Your task to perform on an android device: toggle show notifications on the lock screen Image 0: 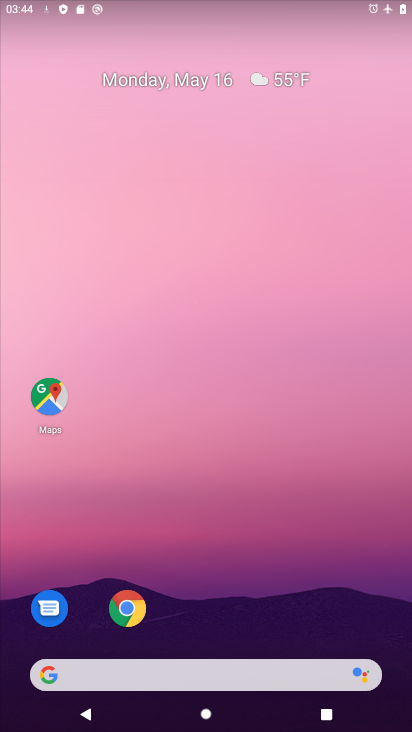
Step 0: drag from (198, 455) to (190, 136)
Your task to perform on an android device: toggle show notifications on the lock screen Image 1: 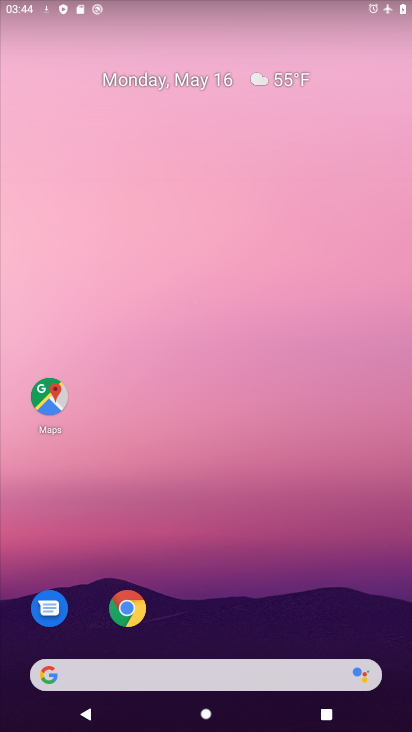
Step 1: drag from (214, 511) to (238, 210)
Your task to perform on an android device: toggle show notifications on the lock screen Image 2: 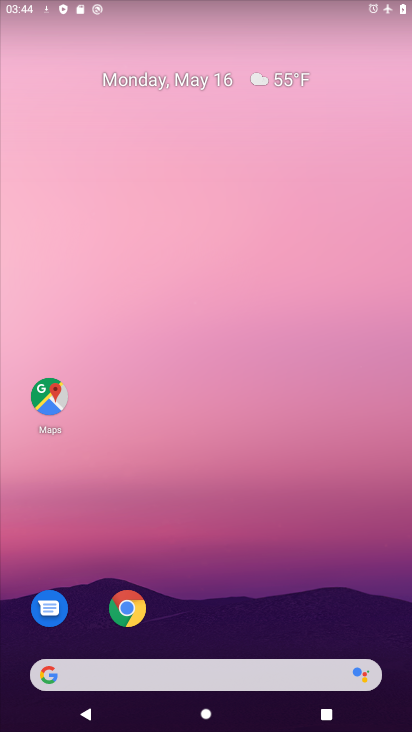
Step 2: drag from (200, 602) to (234, 141)
Your task to perform on an android device: toggle show notifications on the lock screen Image 3: 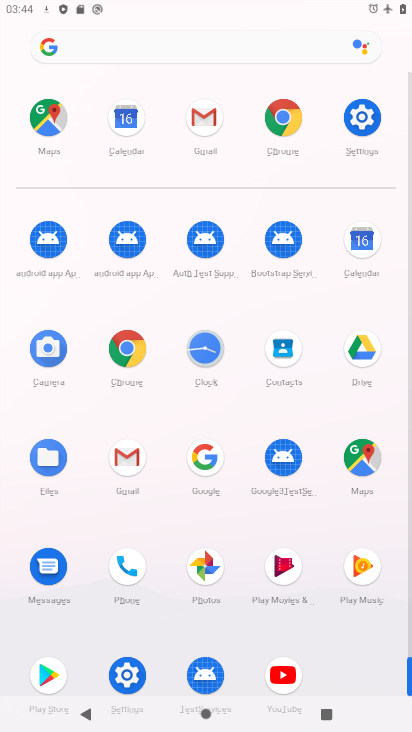
Step 3: click (378, 133)
Your task to perform on an android device: toggle show notifications on the lock screen Image 4: 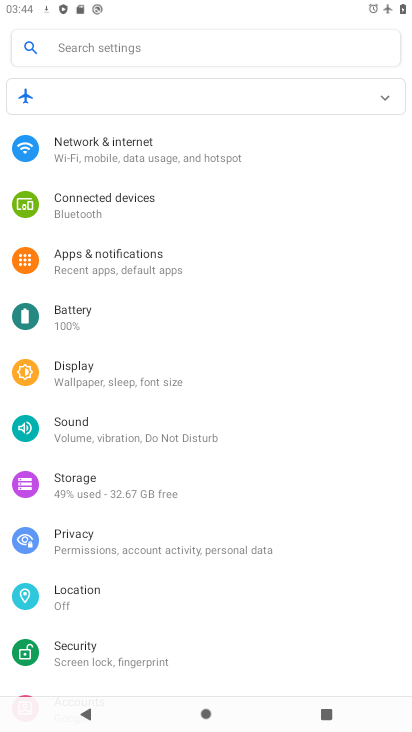
Step 4: click (150, 268)
Your task to perform on an android device: toggle show notifications on the lock screen Image 5: 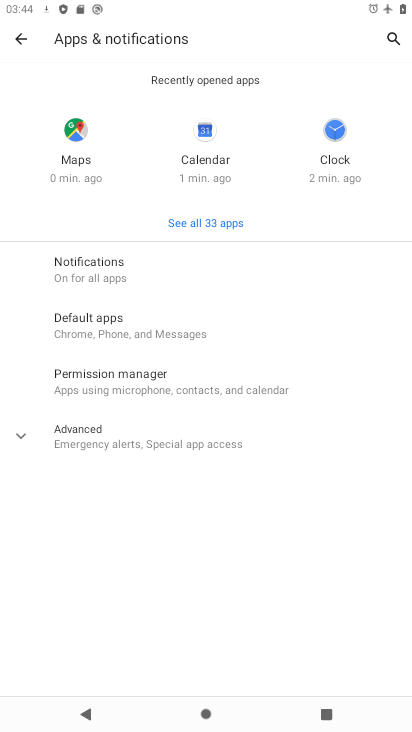
Step 5: click (150, 268)
Your task to perform on an android device: toggle show notifications on the lock screen Image 6: 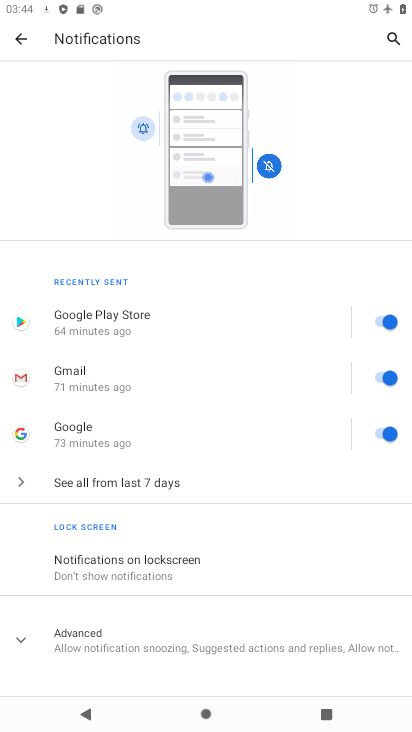
Step 6: click (168, 584)
Your task to perform on an android device: toggle show notifications on the lock screen Image 7: 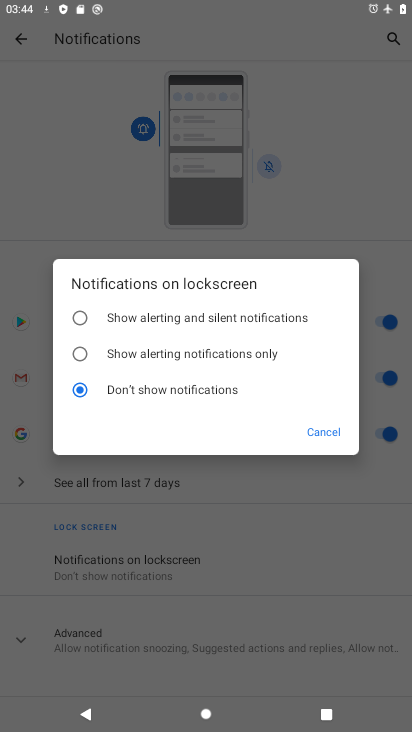
Step 7: click (109, 322)
Your task to perform on an android device: toggle show notifications on the lock screen Image 8: 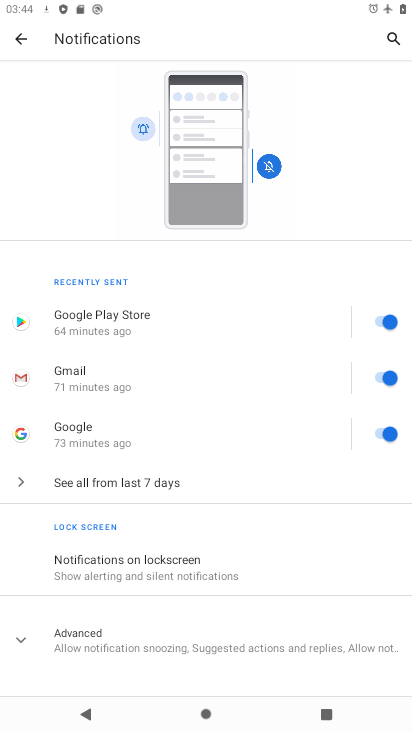
Step 8: task complete